Your task to perform on an android device: turn on location history Image 0: 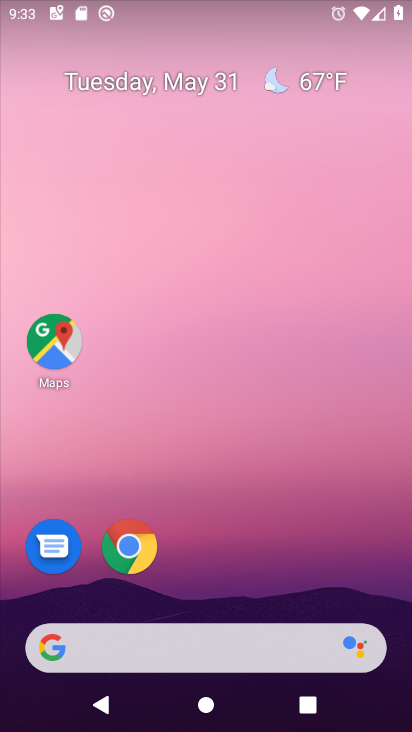
Step 0: drag from (201, 583) to (261, 96)
Your task to perform on an android device: turn on location history Image 1: 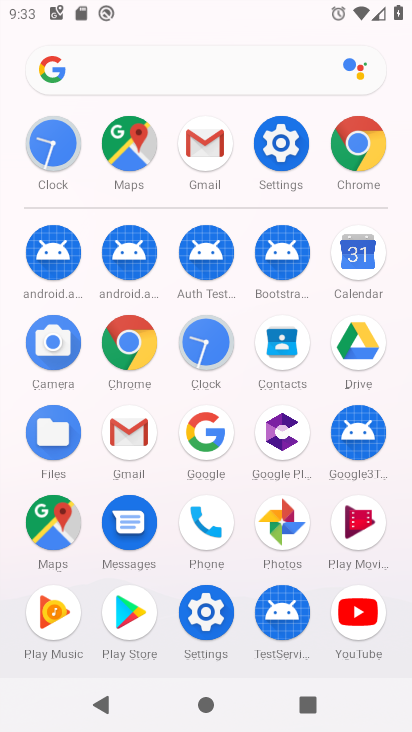
Step 1: click (205, 616)
Your task to perform on an android device: turn on location history Image 2: 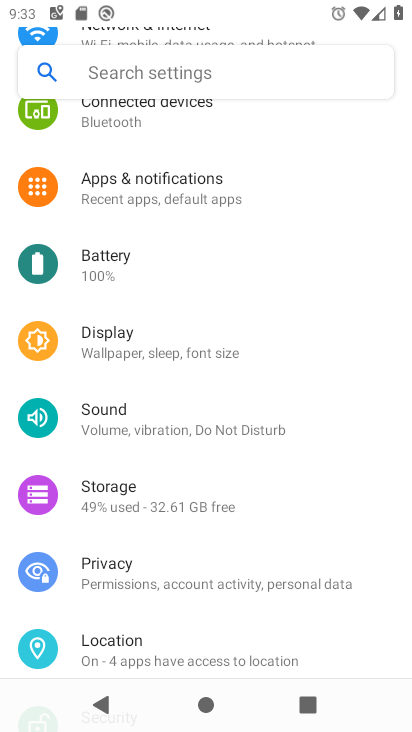
Step 2: click (145, 654)
Your task to perform on an android device: turn on location history Image 3: 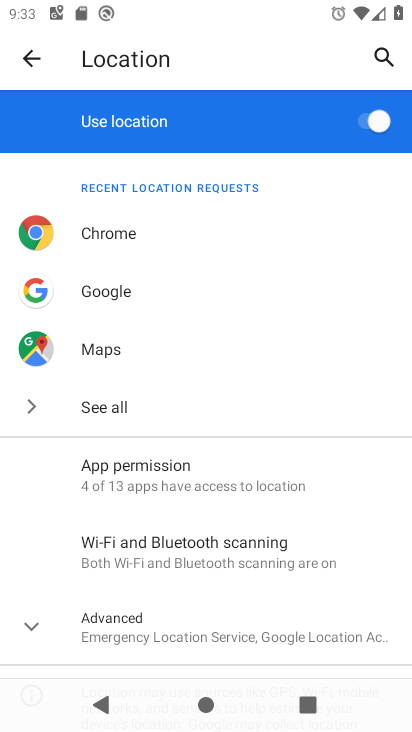
Step 3: click (159, 620)
Your task to perform on an android device: turn on location history Image 4: 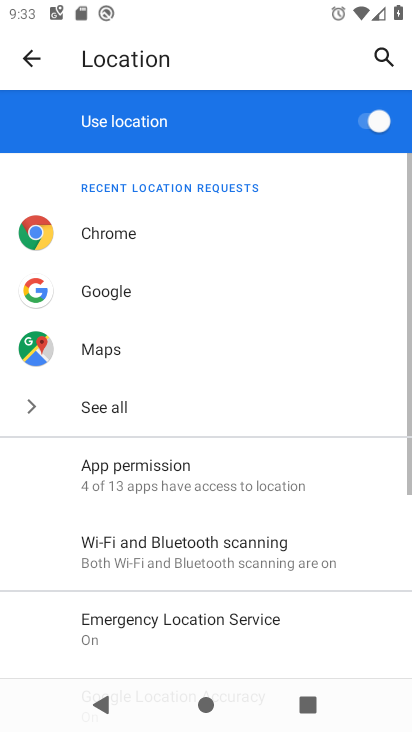
Step 4: drag from (157, 595) to (184, 352)
Your task to perform on an android device: turn on location history Image 5: 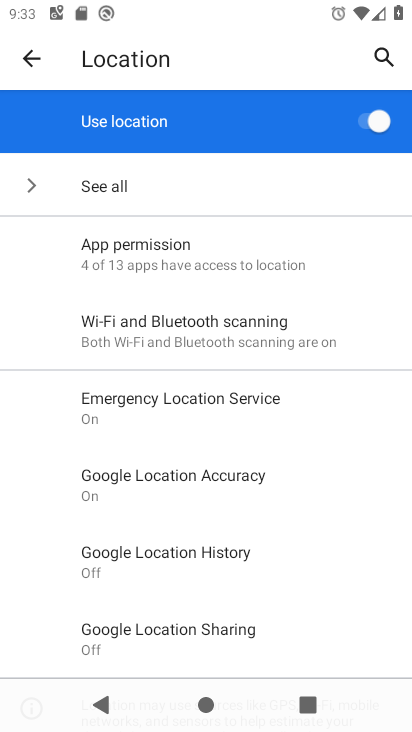
Step 5: click (188, 547)
Your task to perform on an android device: turn on location history Image 6: 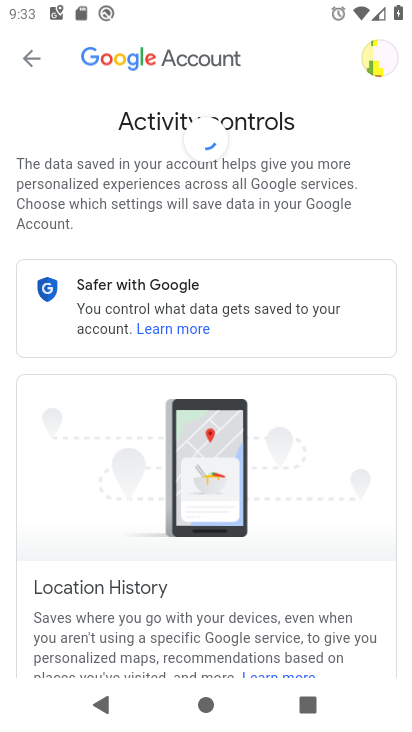
Step 6: task complete